Your task to perform on an android device: Search for vegetarian restaurants on Maps Image 0: 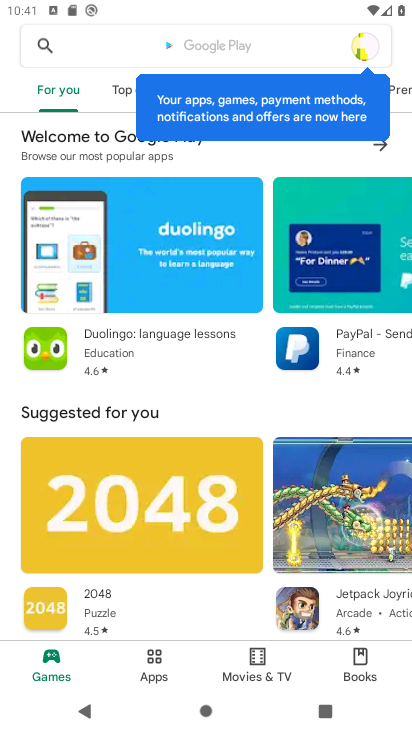
Step 0: press home button
Your task to perform on an android device: Search for vegetarian restaurants on Maps Image 1: 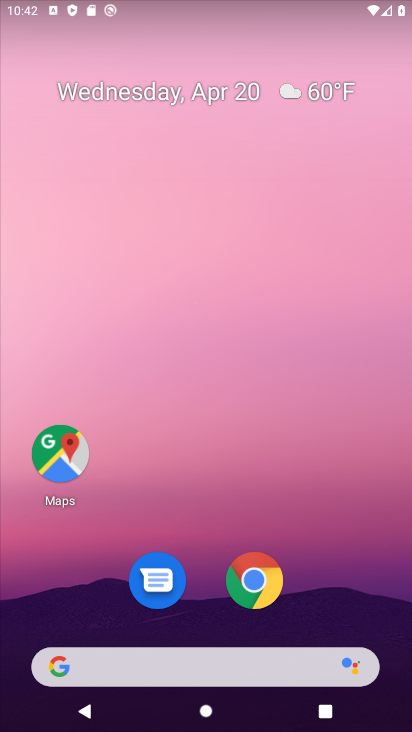
Step 1: click (62, 444)
Your task to perform on an android device: Search for vegetarian restaurants on Maps Image 2: 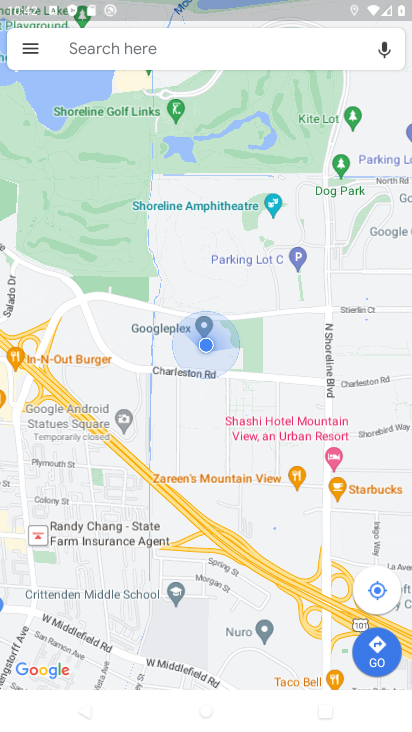
Step 2: click (179, 48)
Your task to perform on an android device: Search for vegetarian restaurants on Maps Image 3: 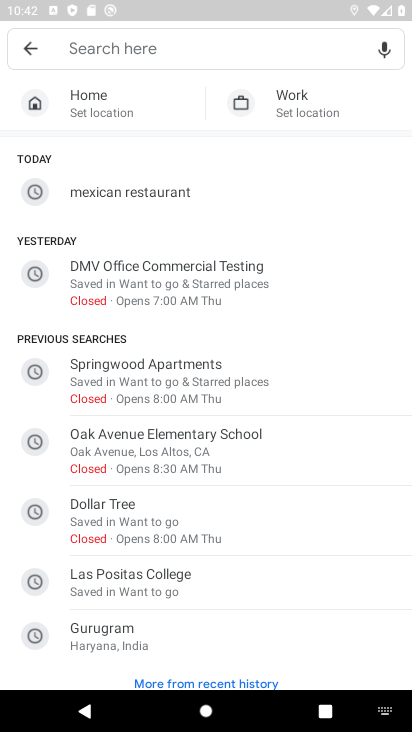
Step 3: type "vegetarian restaurants"
Your task to perform on an android device: Search for vegetarian restaurants on Maps Image 4: 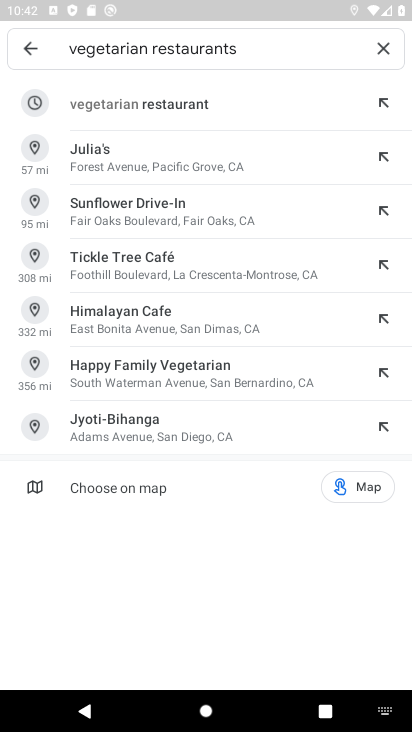
Step 4: click (173, 102)
Your task to perform on an android device: Search for vegetarian restaurants on Maps Image 5: 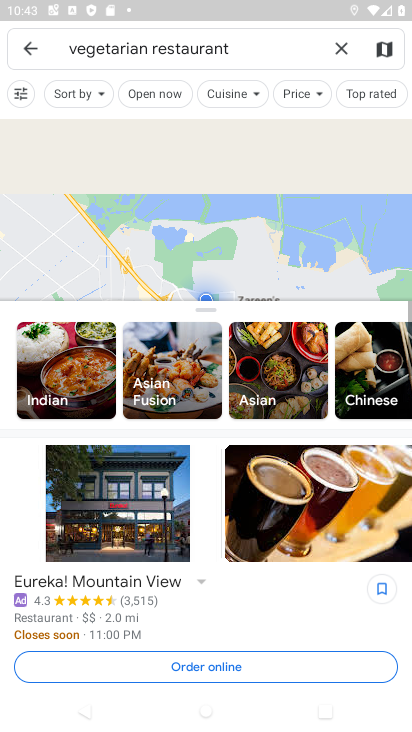
Step 5: task complete